Your task to perform on an android device: Is it going to rain today? Image 0: 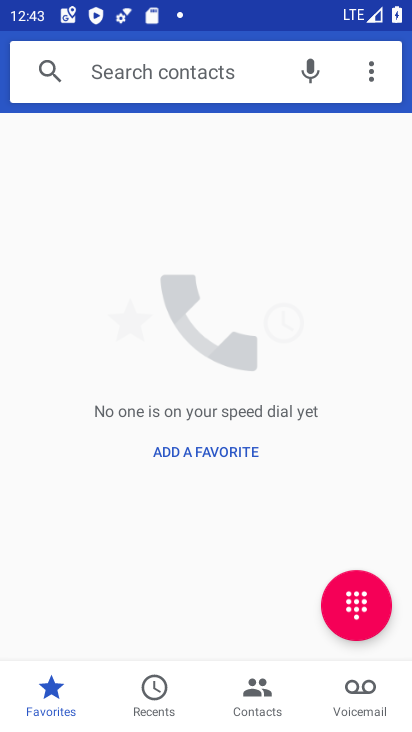
Step 0: press home button
Your task to perform on an android device: Is it going to rain today? Image 1: 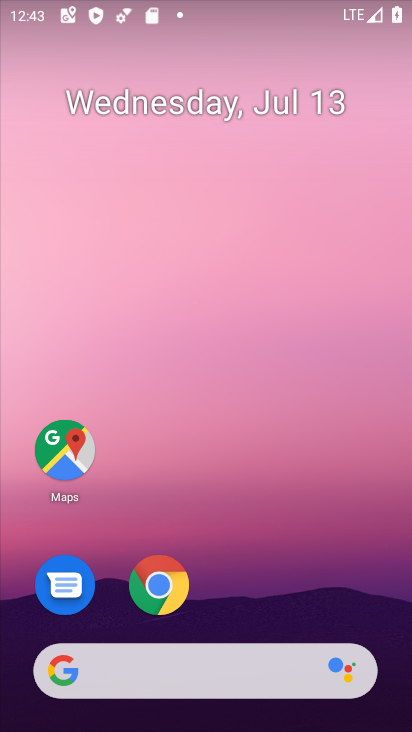
Step 1: click (158, 677)
Your task to perform on an android device: Is it going to rain today? Image 2: 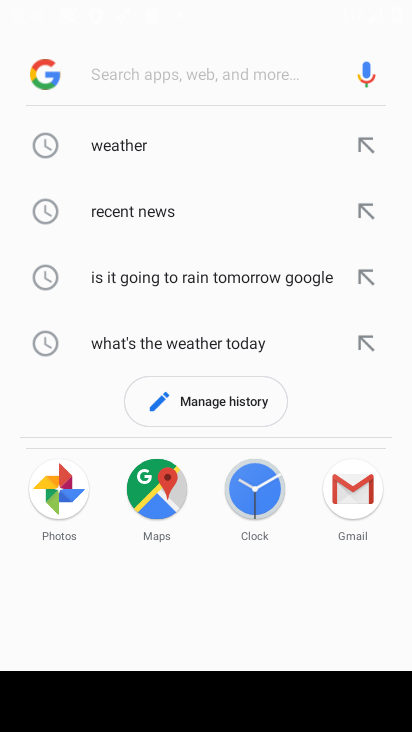
Step 2: click (106, 145)
Your task to perform on an android device: Is it going to rain today? Image 3: 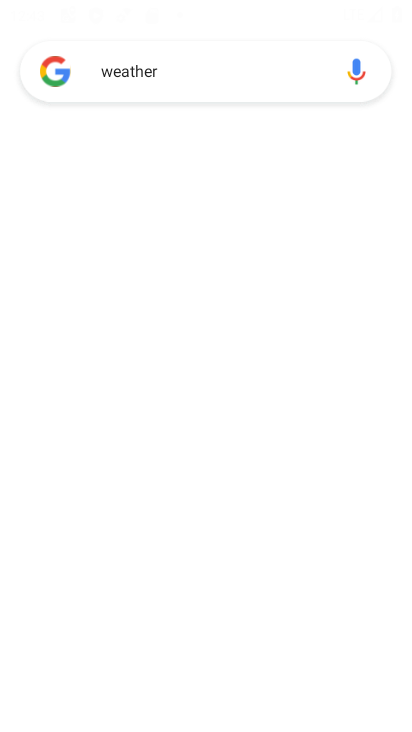
Step 3: click (106, 145)
Your task to perform on an android device: Is it going to rain today? Image 4: 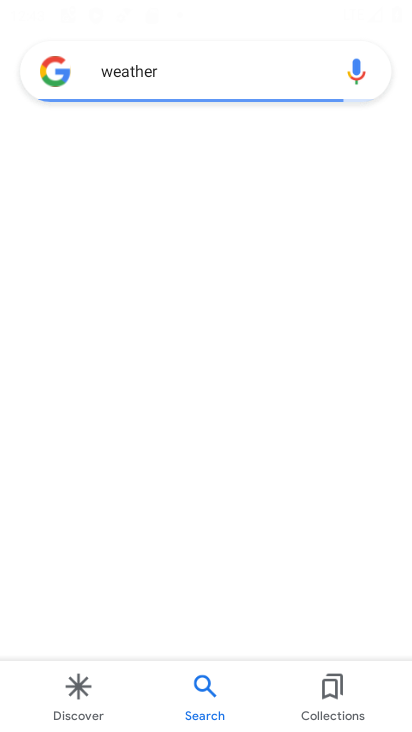
Step 4: click (106, 145)
Your task to perform on an android device: Is it going to rain today? Image 5: 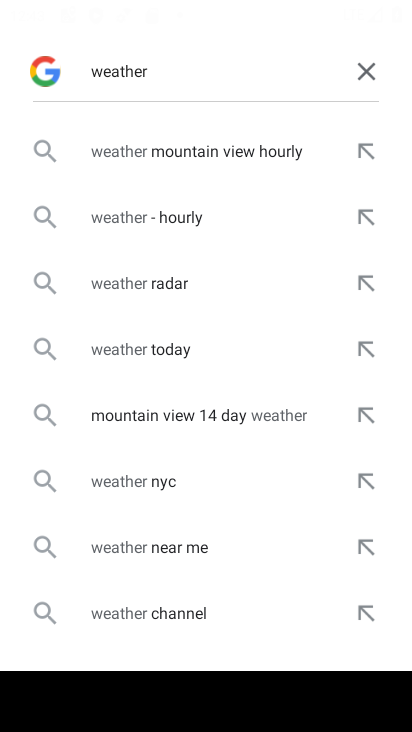
Step 5: click (121, 85)
Your task to perform on an android device: Is it going to rain today? Image 6: 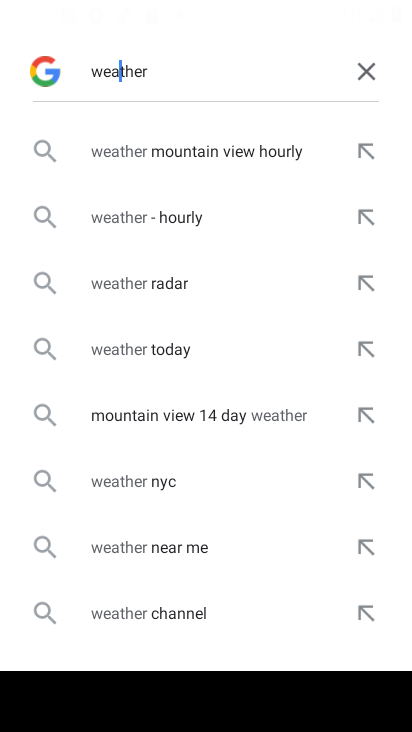
Step 6: click (362, 66)
Your task to perform on an android device: Is it going to rain today? Image 7: 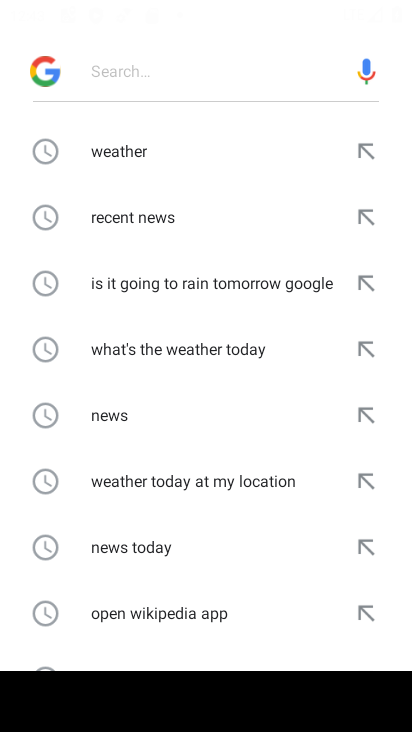
Step 7: click (140, 153)
Your task to perform on an android device: Is it going to rain today? Image 8: 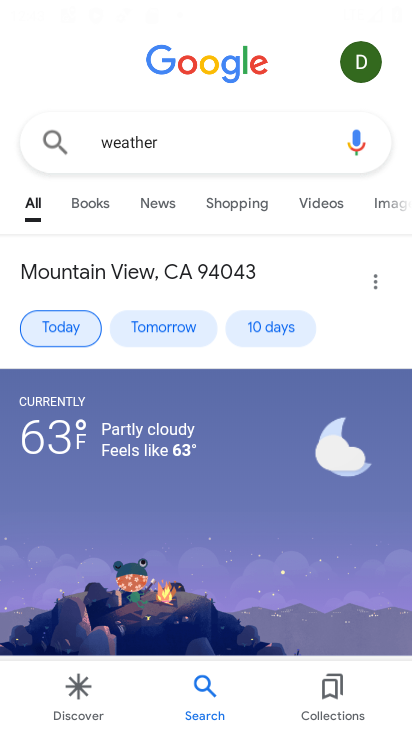
Step 8: drag from (225, 419) to (220, 309)
Your task to perform on an android device: Is it going to rain today? Image 9: 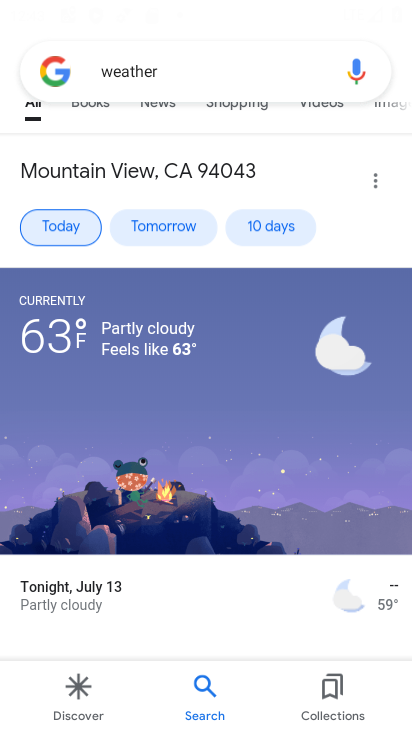
Step 9: drag from (255, 552) to (259, 339)
Your task to perform on an android device: Is it going to rain today? Image 10: 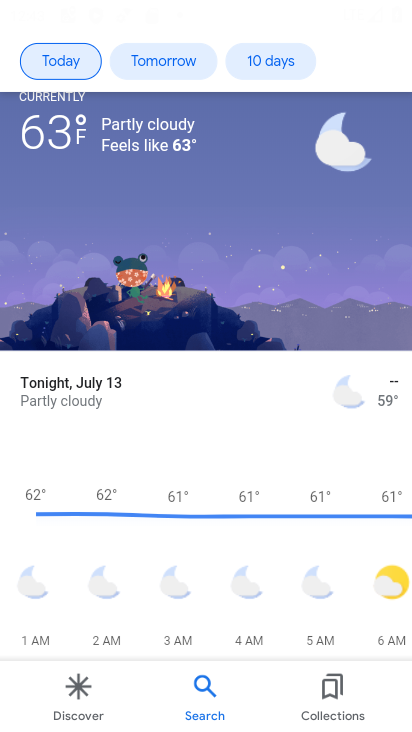
Step 10: drag from (232, 604) to (67, 617)
Your task to perform on an android device: Is it going to rain today? Image 11: 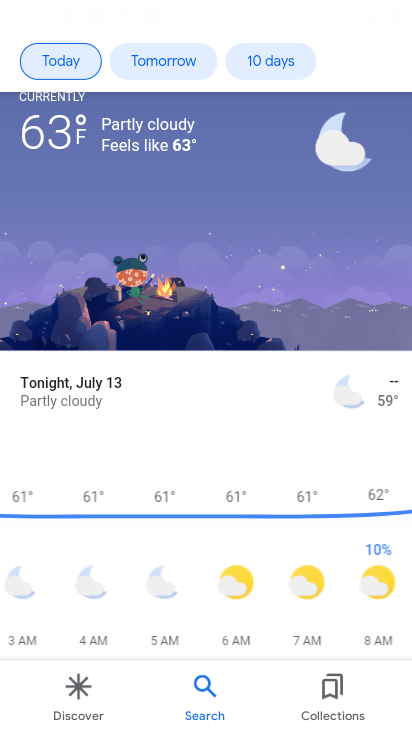
Step 11: click (129, 601)
Your task to perform on an android device: Is it going to rain today? Image 12: 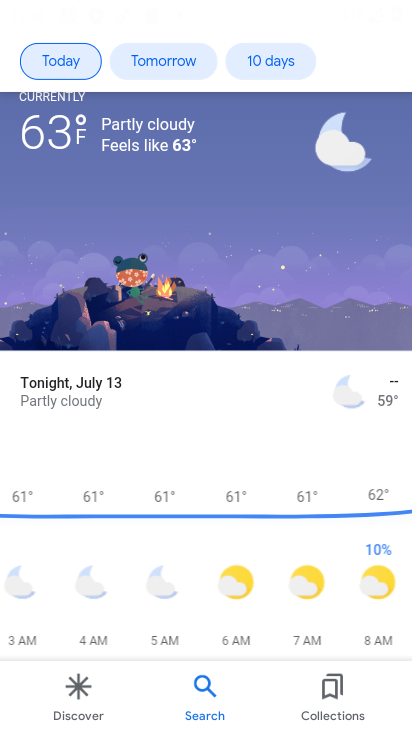
Step 12: drag from (214, 600) to (109, 600)
Your task to perform on an android device: Is it going to rain today? Image 13: 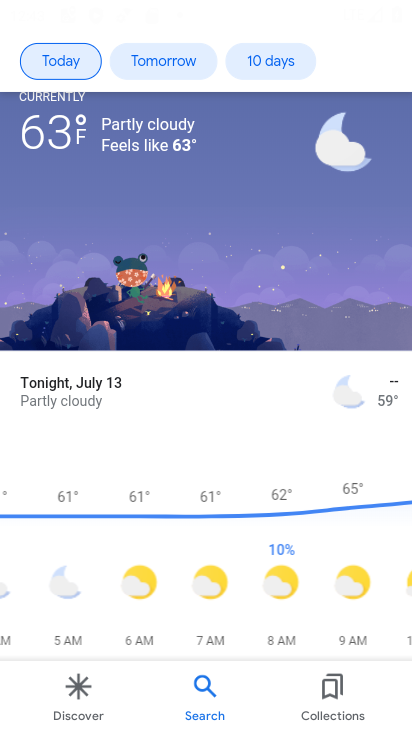
Step 13: click (109, 600)
Your task to perform on an android device: Is it going to rain today? Image 14: 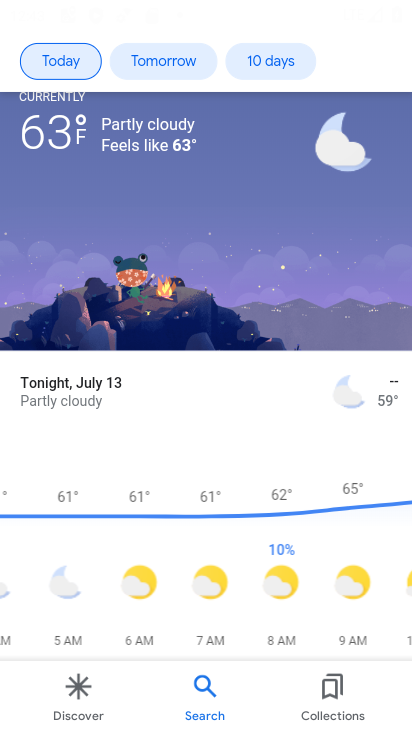
Step 14: task complete